Your task to perform on an android device: empty trash in google photos Image 0: 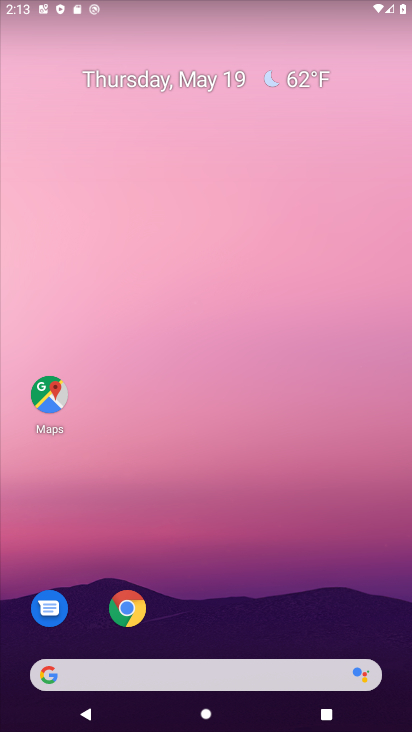
Step 0: drag from (328, 607) to (266, 163)
Your task to perform on an android device: empty trash in google photos Image 1: 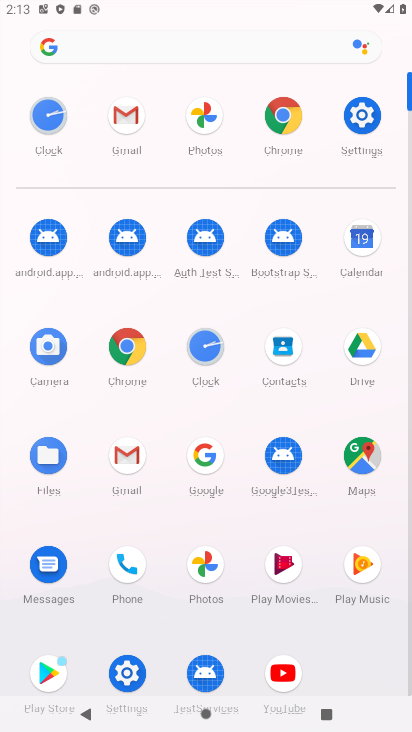
Step 1: click (212, 155)
Your task to perform on an android device: empty trash in google photos Image 2: 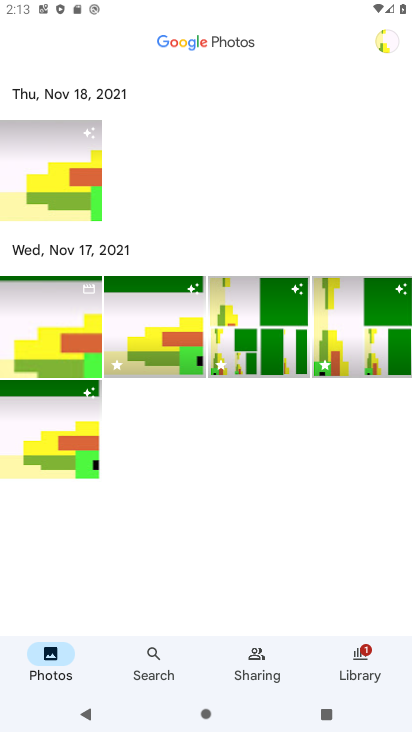
Step 2: click (351, 687)
Your task to perform on an android device: empty trash in google photos Image 3: 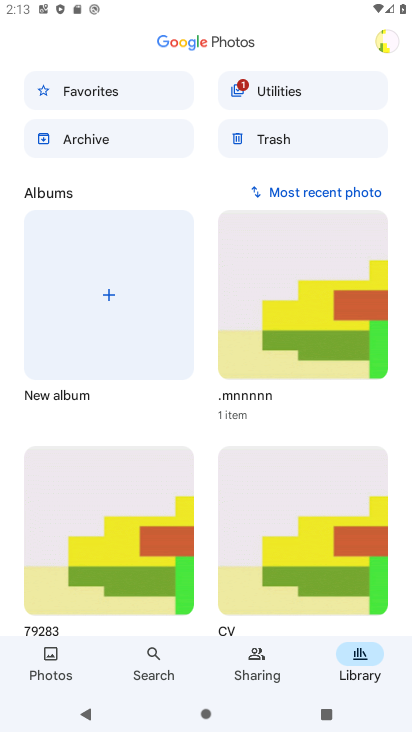
Step 3: click (258, 140)
Your task to perform on an android device: empty trash in google photos Image 4: 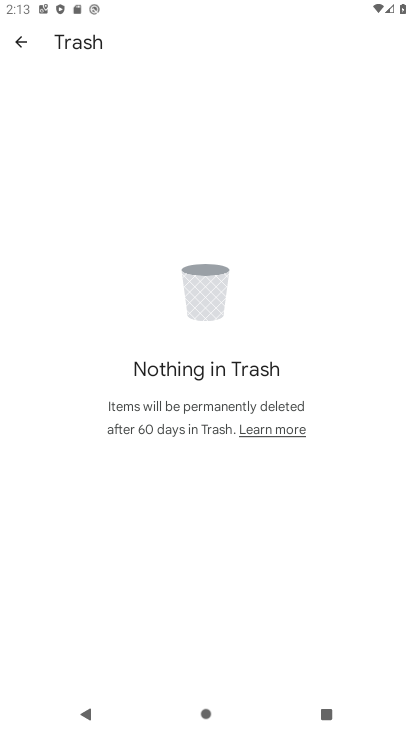
Step 4: task complete